Your task to perform on an android device: turn off sleep mode Image 0: 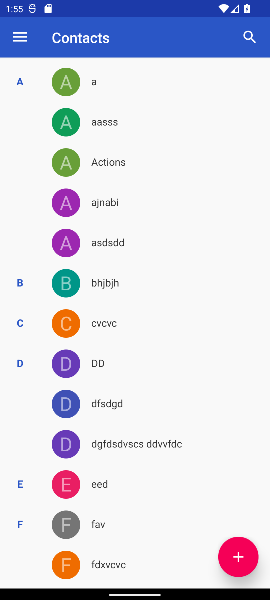
Step 0: task complete